Your task to perform on an android device: open wifi settings Image 0: 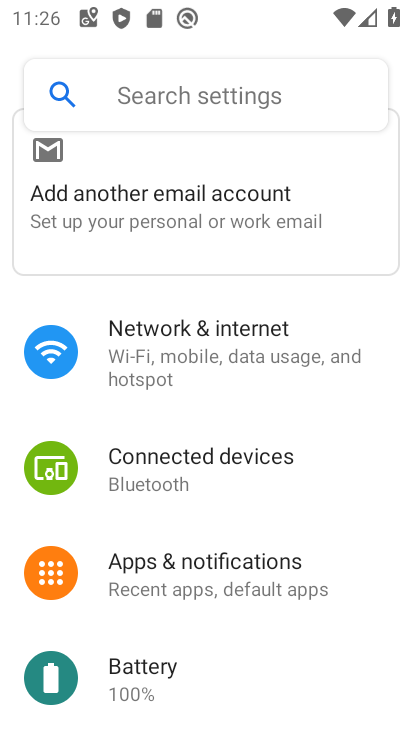
Step 0: click (255, 335)
Your task to perform on an android device: open wifi settings Image 1: 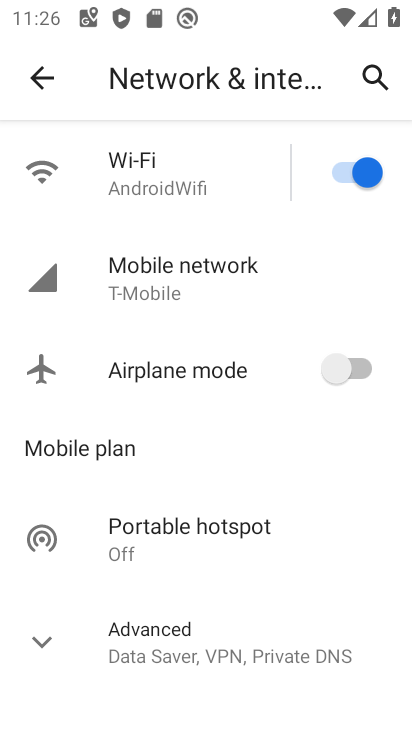
Step 1: click (189, 168)
Your task to perform on an android device: open wifi settings Image 2: 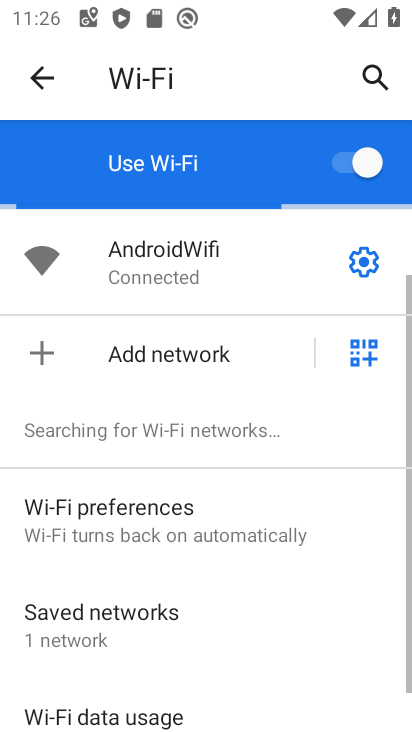
Step 2: click (367, 258)
Your task to perform on an android device: open wifi settings Image 3: 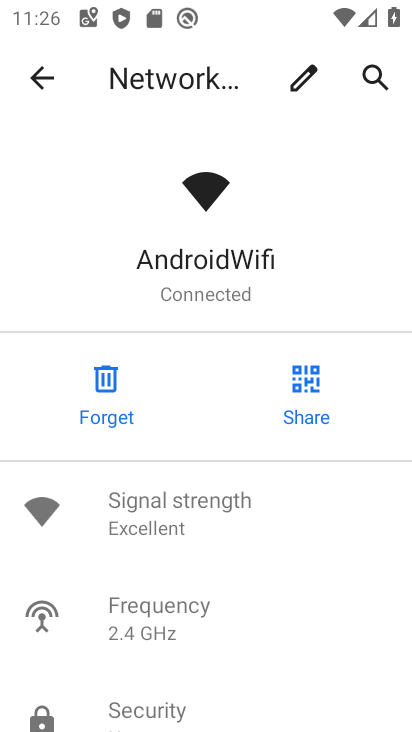
Step 3: task complete